Your task to perform on an android device: change the upload size in google photos Image 0: 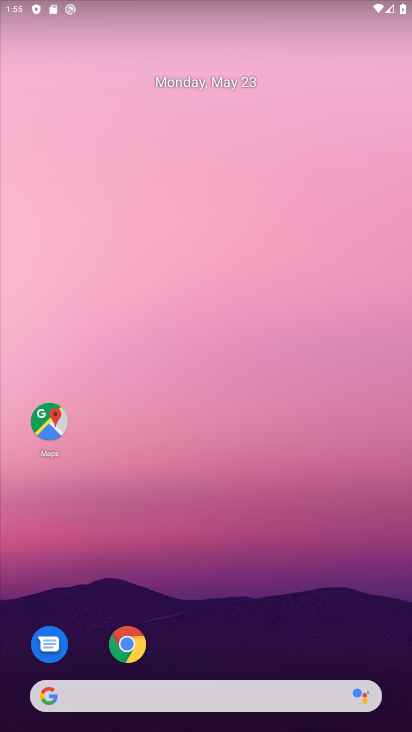
Step 0: drag from (220, 587) to (242, 65)
Your task to perform on an android device: change the upload size in google photos Image 1: 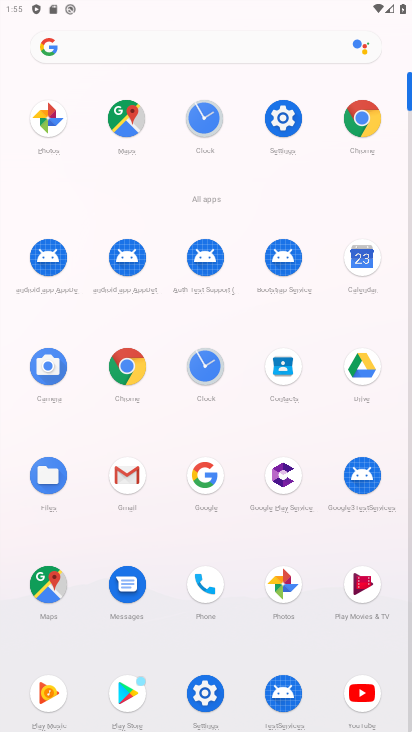
Step 1: click (46, 134)
Your task to perform on an android device: change the upload size in google photos Image 2: 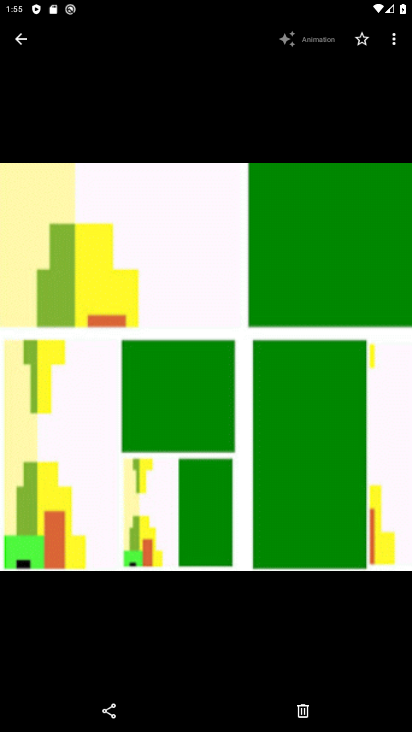
Step 2: click (30, 49)
Your task to perform on an android device: change the upload size in google photos Image 3: 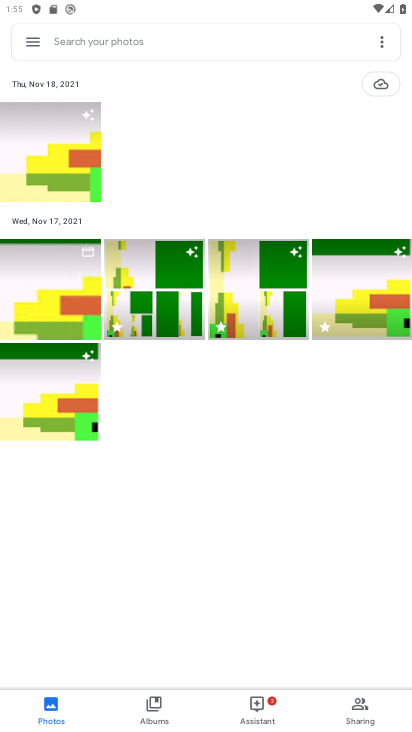
Step 3: click (33, 35)
Your task to perform on an android device: change the upload size in google photos Image 4: 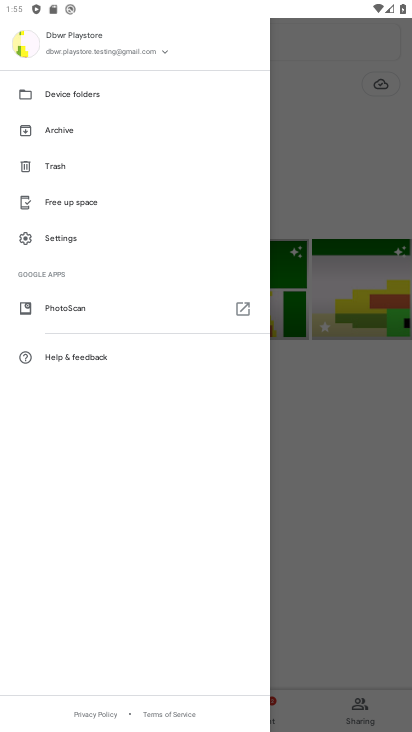
Step 4: click (57, 248)
Your task to perform on an android device: change the upload size in google photos Image 5: 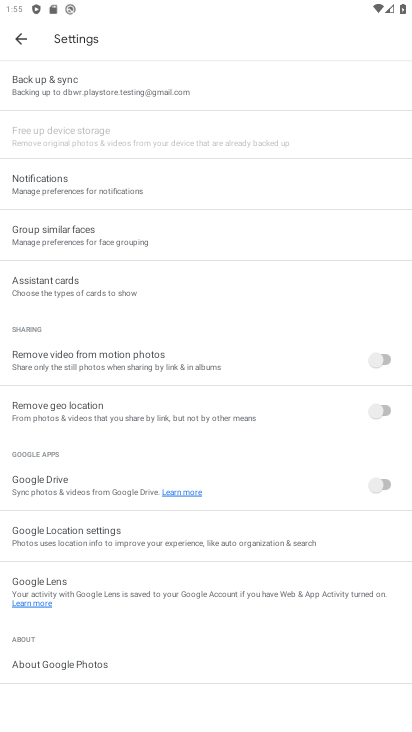
Step 5: click (50, 89)
Your task to perform on an android device: change the upload size in google photos Image 6: 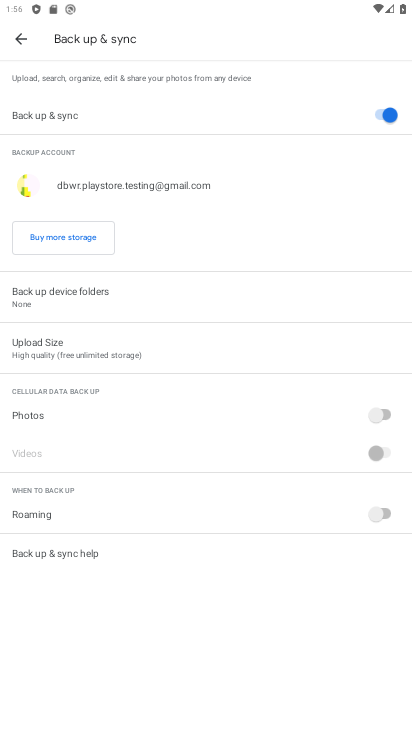
Step 6: click (88, 343)
Your task to perform on an android device: change the upload size in google photos Image 7: 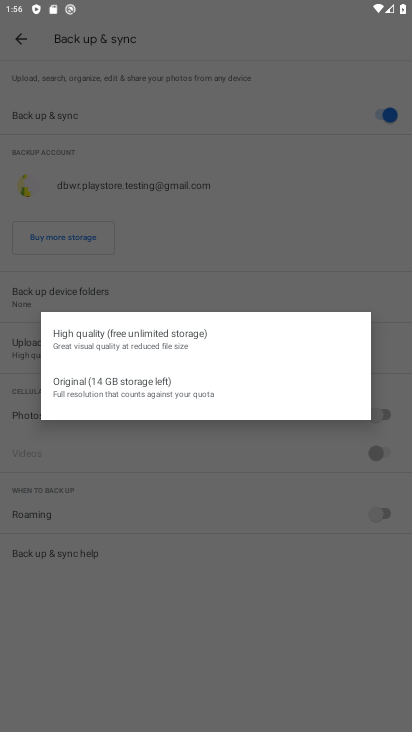
Step 7: click (75, 384)
Your task to perform on an android device: change the upload size in google photos Image 8: 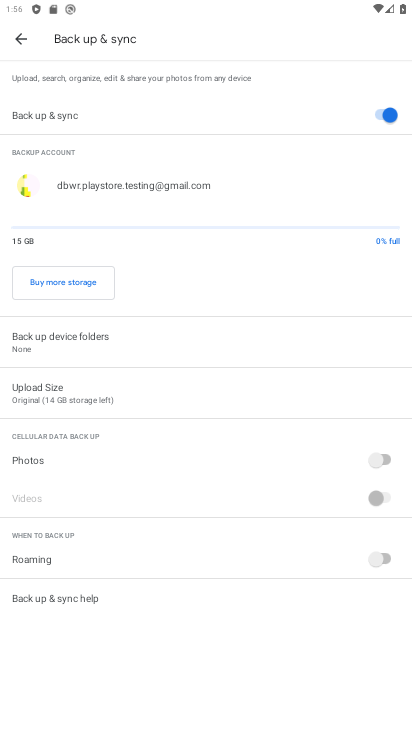
Step 8: task complete